Your task to perform on an android device: Turn on the flashlight Image 0: 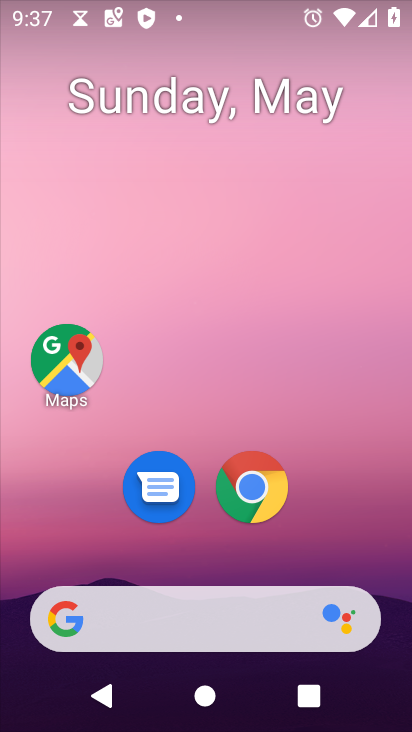
Step 0: drag from (335, 511) to (266, 7)
Your task to perform on an android device: Turn on the flashlight Image 1: 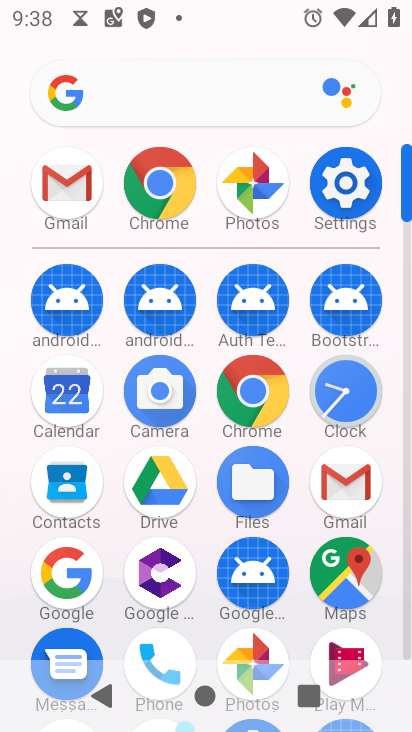
Step 1: click (340, 198)
Your task to perform on an android device: Turn on the flashlight Image 2: 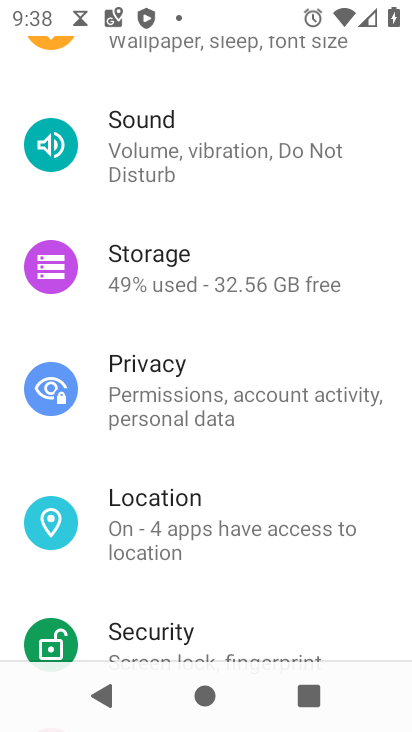
Step 2: task complete